Your task to perform on an android device: empty trash in google photos Image 0: 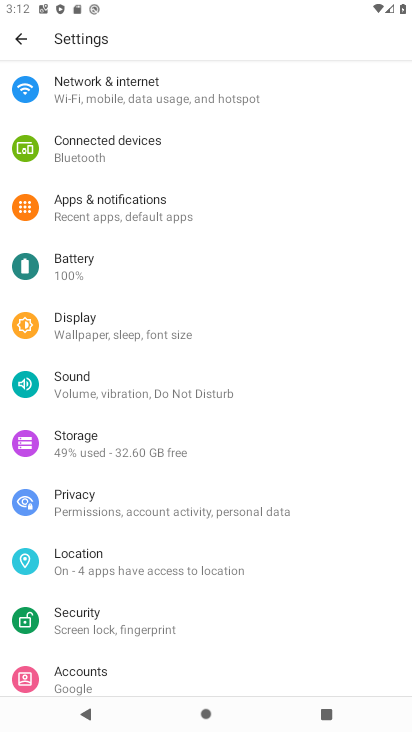
Step 0: press back button
Your task to perform on an android device: empty trash in google photos Image 1: 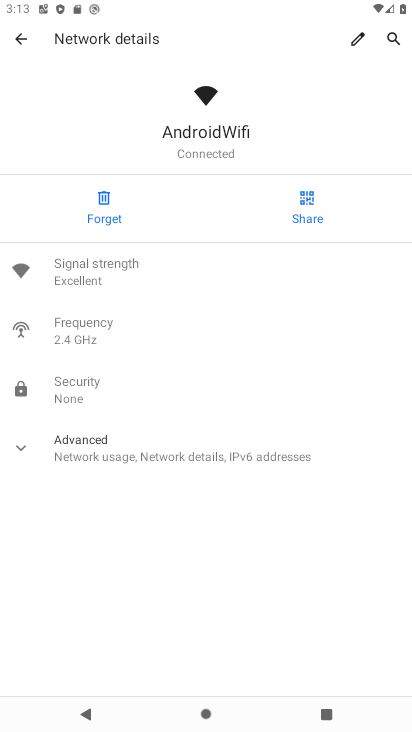
Step 1: press home button
Your task to perform on an android device: empty trash in google photos Image 2: 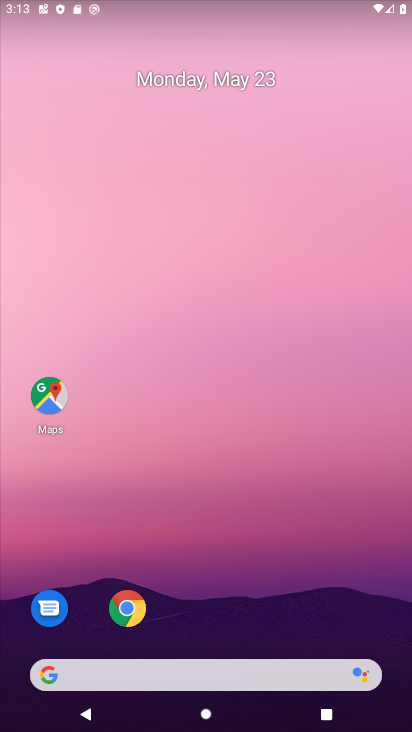
Step 2: drag from (241, 634) to (107, 15)
Your task to perform on an android device: empty trash in google photos Image 3: 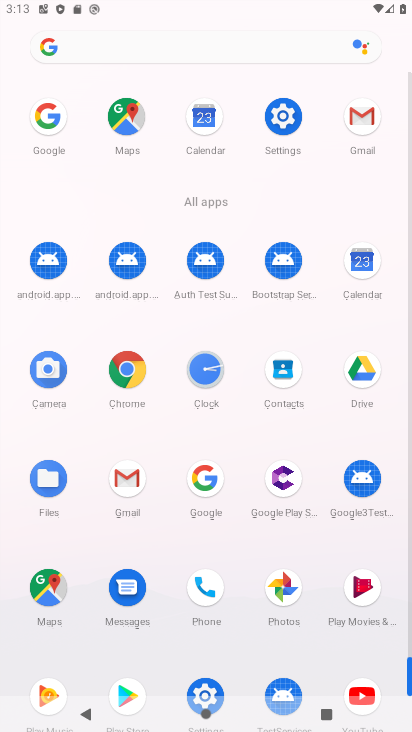
Step 3: click (285, 586)
Your task to perform on an android device: empty trash in google photos Image 4: 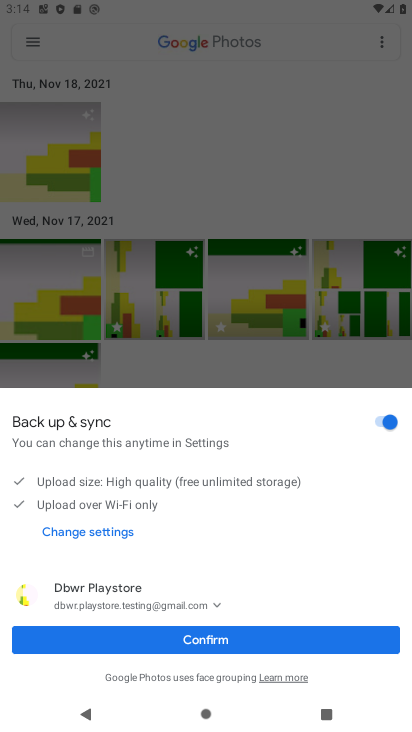
Step 4: click (232, 635)
Your task to perform on an android device: empty trash in google photos Image 5: 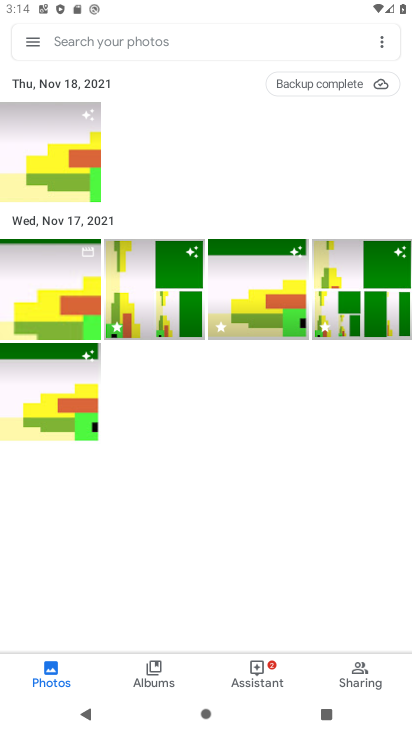
Step 5: click (31, 45)
Your task to perform on an android device: empty trash in google photos Image 6: 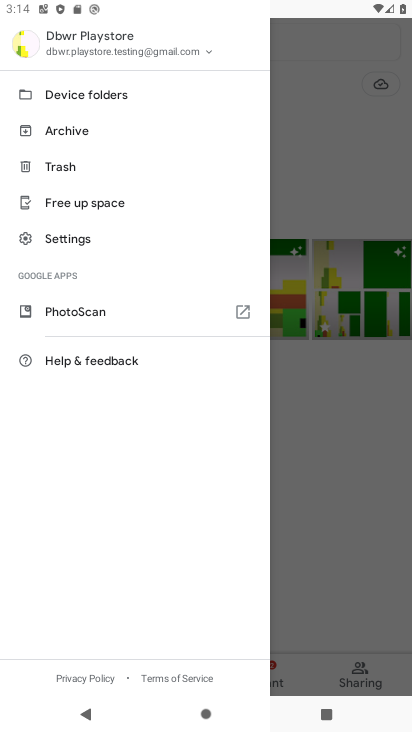
Step 6: click (62, 168)
Your task to perform on an android device: empty trash in google photos Image 7: 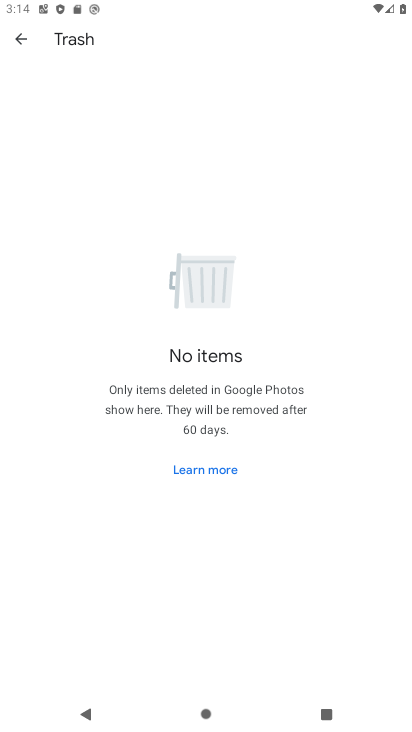
Step 7: task complete